Your task to perform on an android device: toggle airplane mode Image 0: 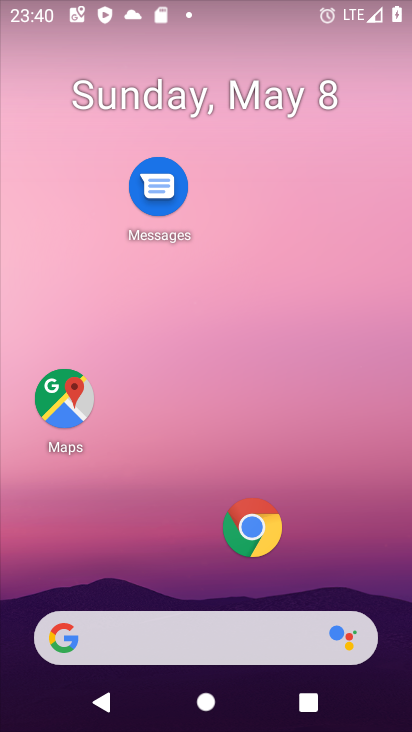
Step 0: drag from (173, 519) to (199, 104)
Your task to perform on an android device: toggle airplane mode Image 1: 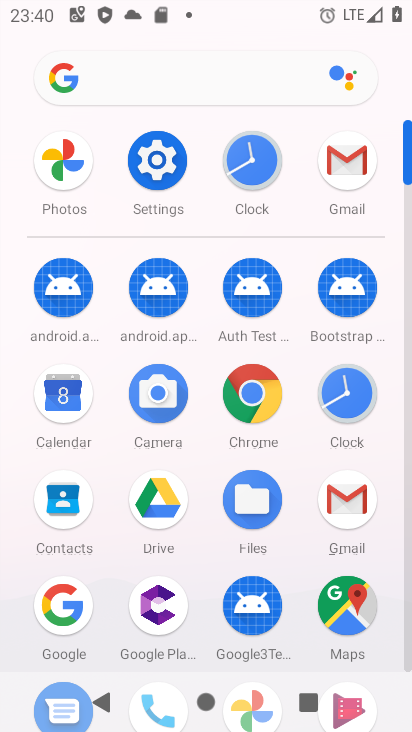
Step 1: click (150, 154)
Your task to perform on an android device: toggle airplane mode Image 2: 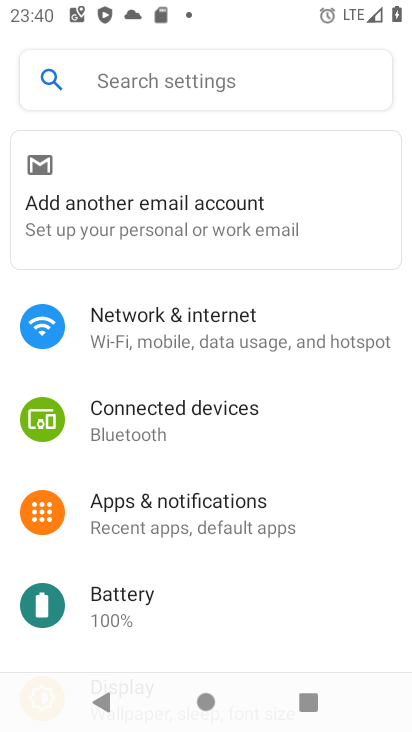
Step 2: click (200, 331)
Your task to perform on an android device: toggle airplane mode Image 3: 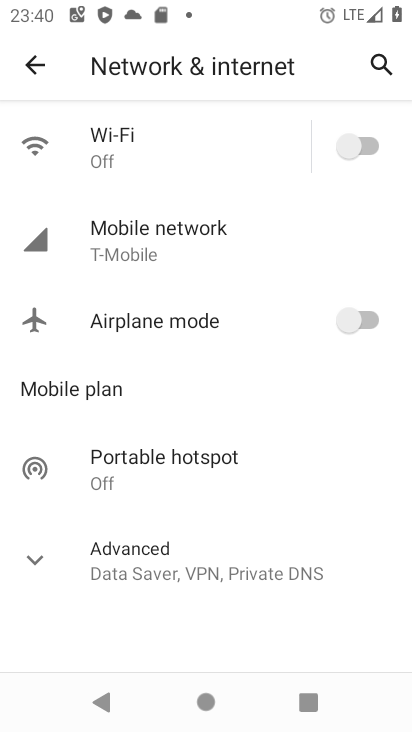
Step 3: click (357, 324)
Your task to perform on an android device: toggle airplane mode Image 4: 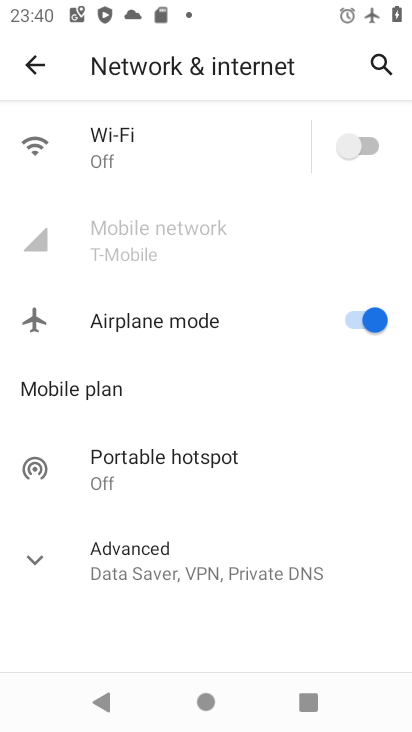
Step 4: task complete